Your task to perform on an android device: Go to settings Image 0: 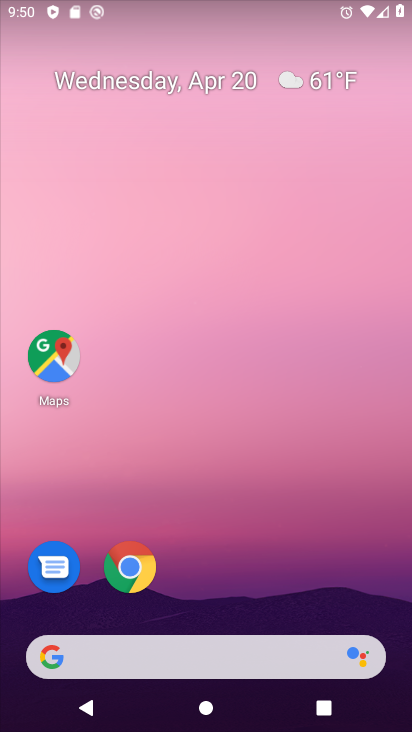
Step 0: drag from (222, 574) to (285, 132)
Your task to perform on an android device: Go to settings Image 1: 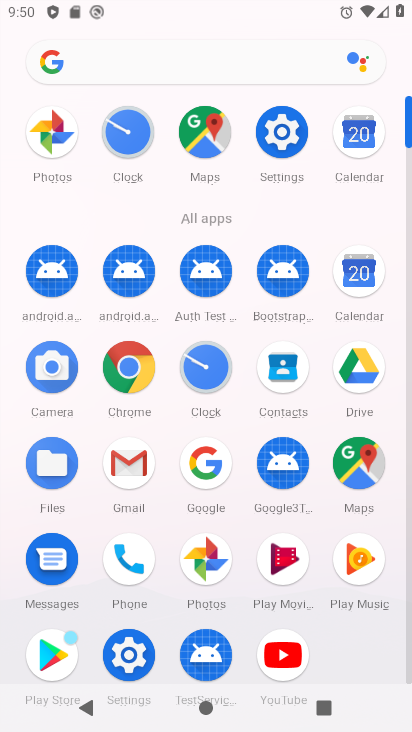
Step 1: click (278, 130)
Your task to perform on an android device: Go to settings Image 2: 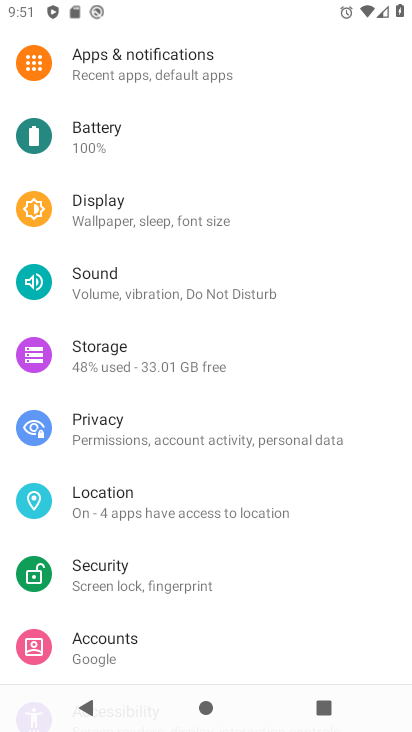
Step 2: task complete